Your task to perform on an android device: check storage Image 0: 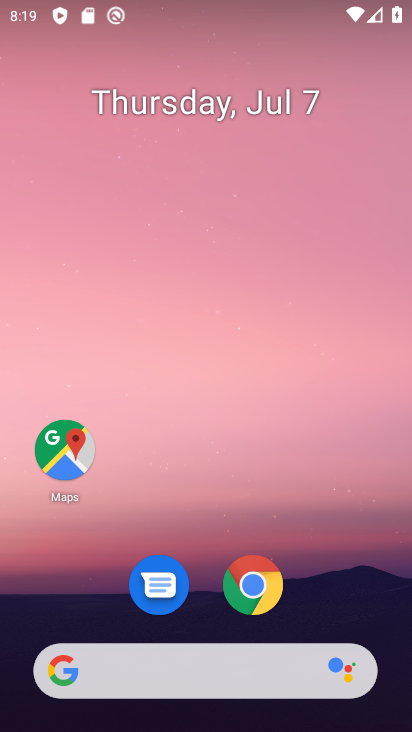
Step 0: drag from (213, 497) to (228, 11)
Your task to perform on an android device: check storage Image 1: 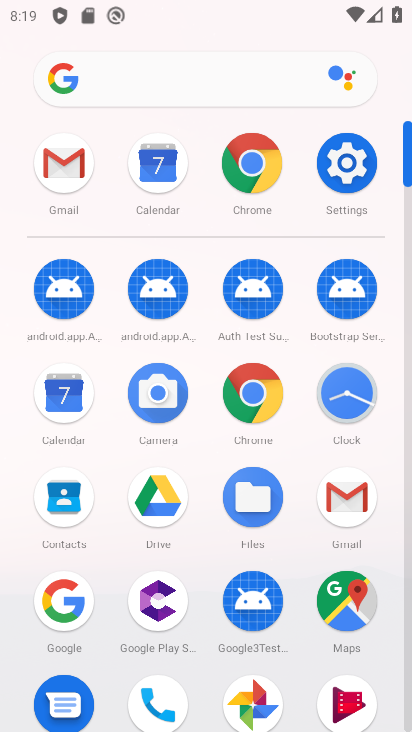
Step 1: click (340, 160)
Your task to perform on an android device: check storage Image 2: 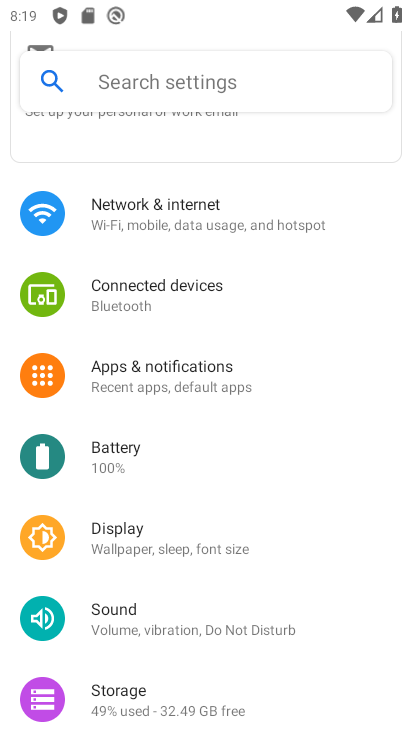
Step 2: drag from (208, 319) to (211, 595)
Your task to perform on an android device: check storage Image 3: 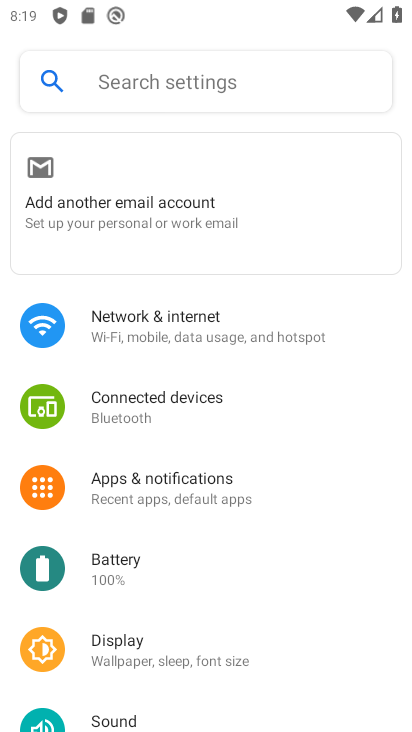
Step 3: drag from (207, 590) to (227, 112)
Your task to perform on an android device: check storage Image 4: 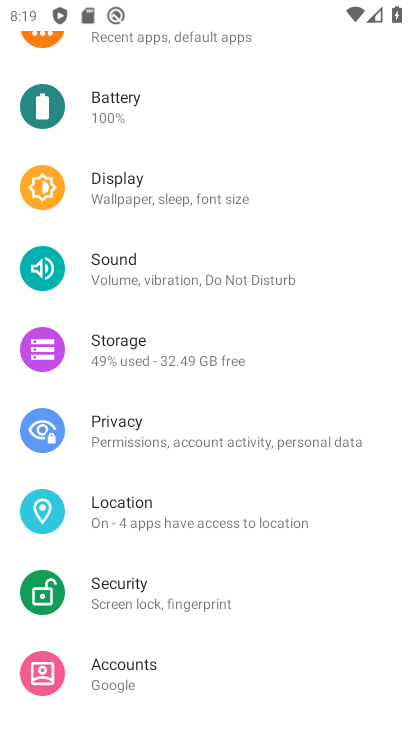
Step 4: click (176, 350)
Your task to perform on an android device: check storage Image 5: 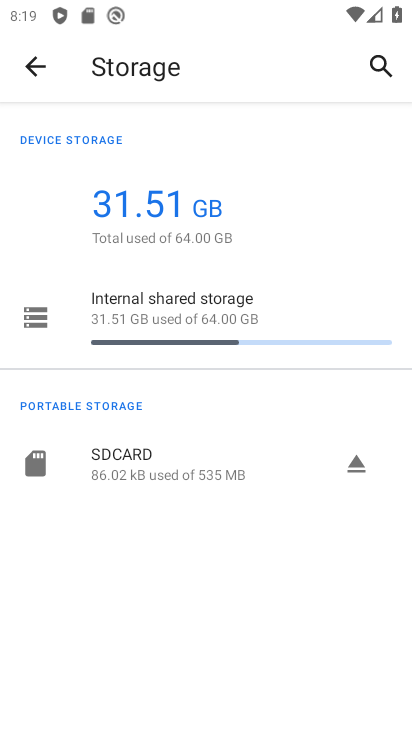
Step 5: task complete